Your task to perform on an android device: Search for seafood restaurants on Google Maps Image 0: 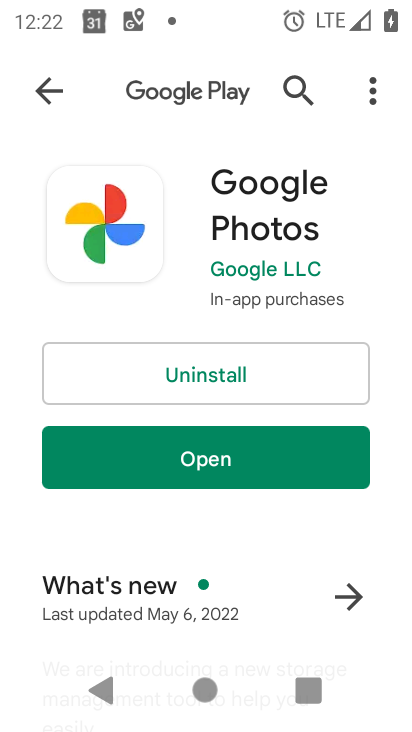
Step 0: press home button
Your task to perform on an android device: Search for seafood restaurants on Google Maps Image 1: 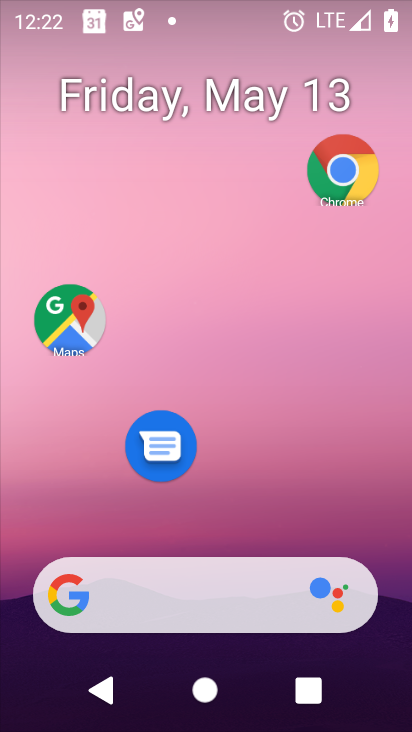
Step 1: drag from (269, 558) to (317, 0)
Your task to perform on an android device: Search for seafood restaurants on Google Maps Image 2: 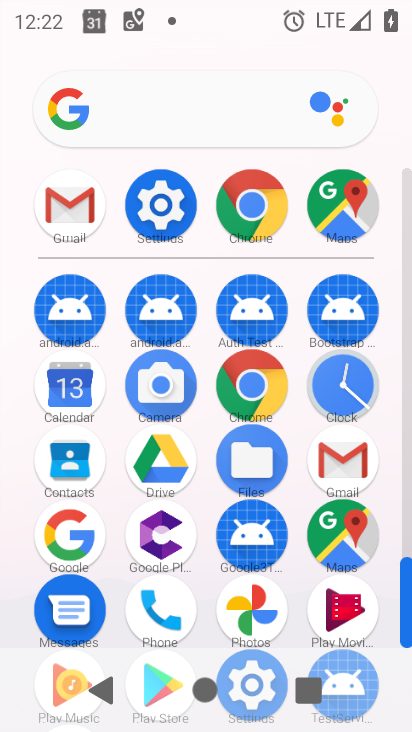
Step 2: click (321, 552)
Your task to perform on an android device: Search for seafood restaurants on Google Maps Image 3: 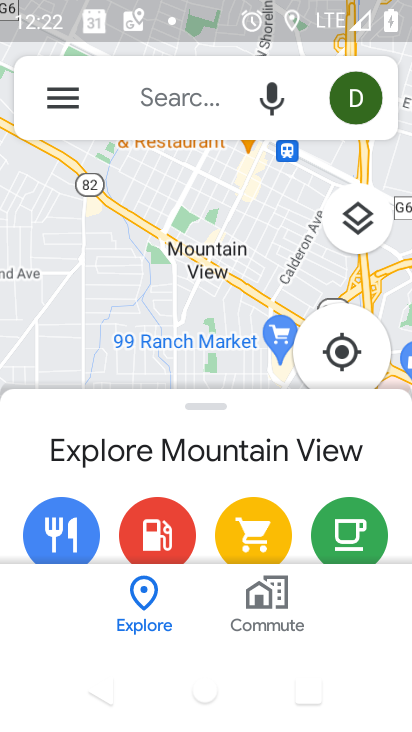
Step 3: click (186, 82)
Your task to perform on an android device: Search for seafood restaurants on Google Maps Image 4: 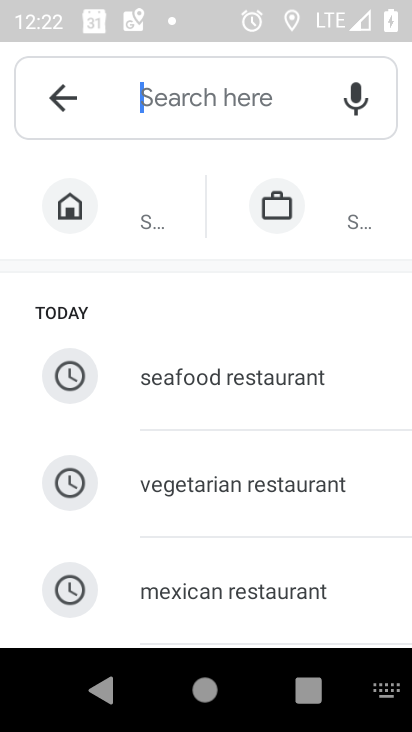
Step 4: click (272, 375)
Your task to perform on an android device: Search for seafood restaurants on Google Maps Image 5: 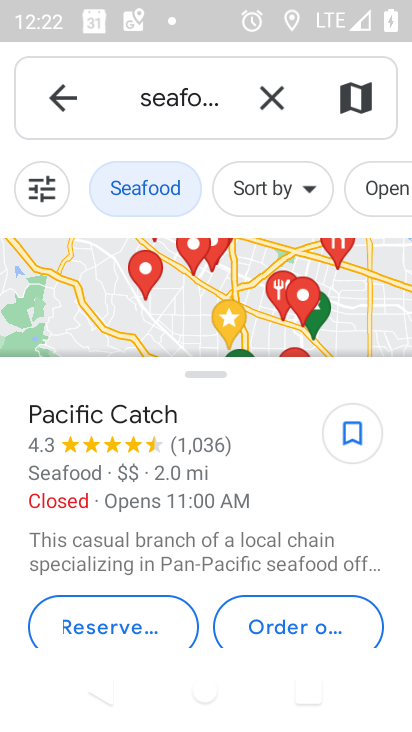
Step 5: task complete